Your task to perform on an android device: change your default location settings in chrome Image 0: 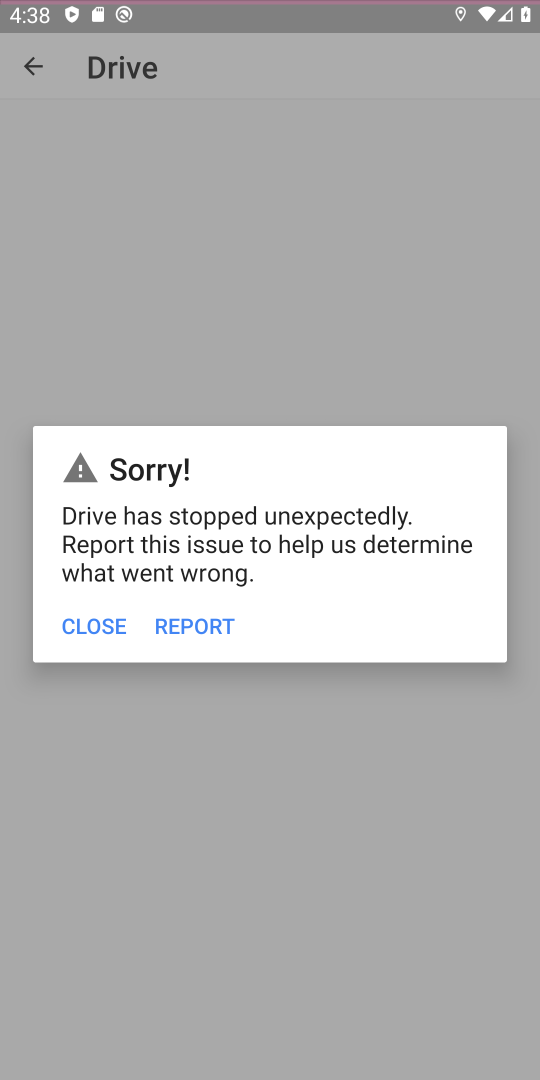
Step 0: press back button
Your task to perform on an android device: change your default location settings in chrome Image 1: 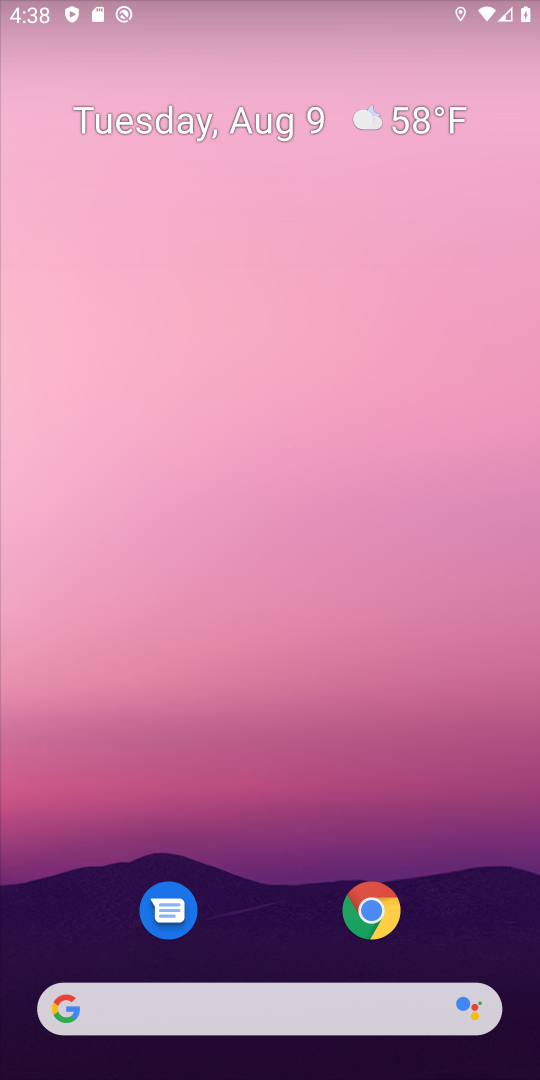
Step 1: press home button
Your task to perform on an android device: change your default location settings in chrome Image 2: 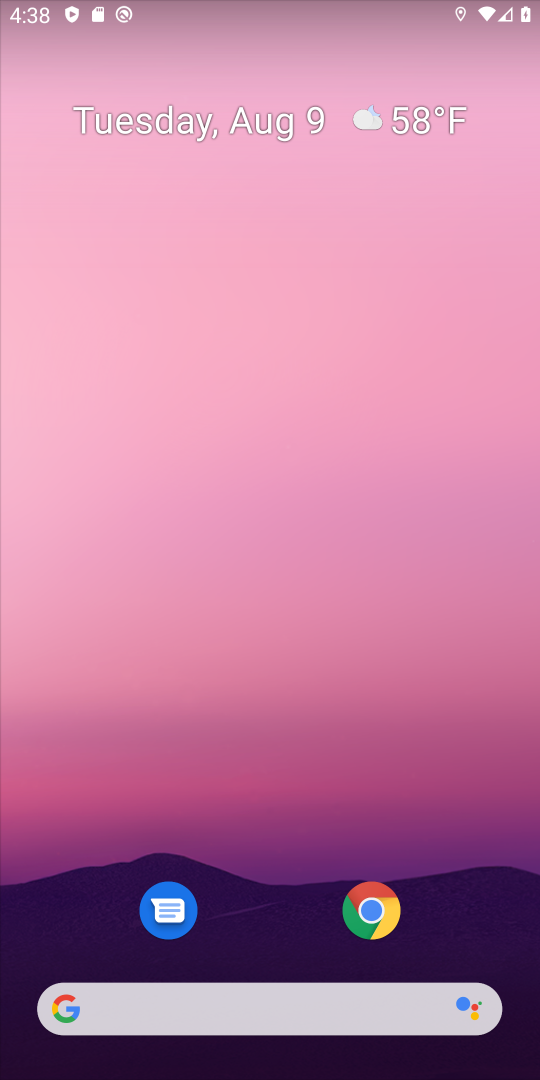
Step 2: drag from (224, 638) to (146, 149)
Your task to perform on an android device: change your default location settings in chrome Image 3: 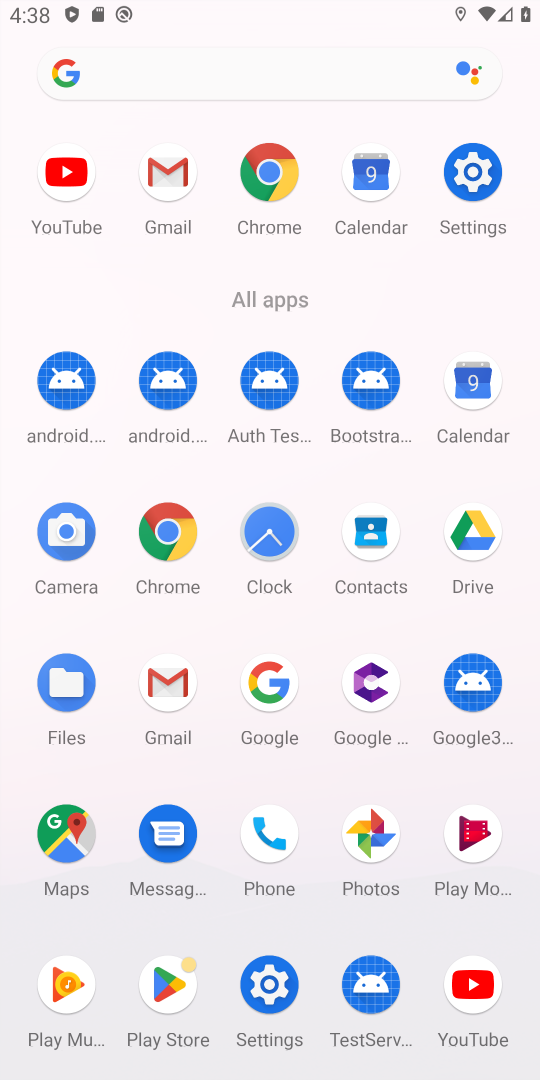
Step 3: click (259, 176)
Your task to perform on an android device: change your default location settings in chrome Image 4: 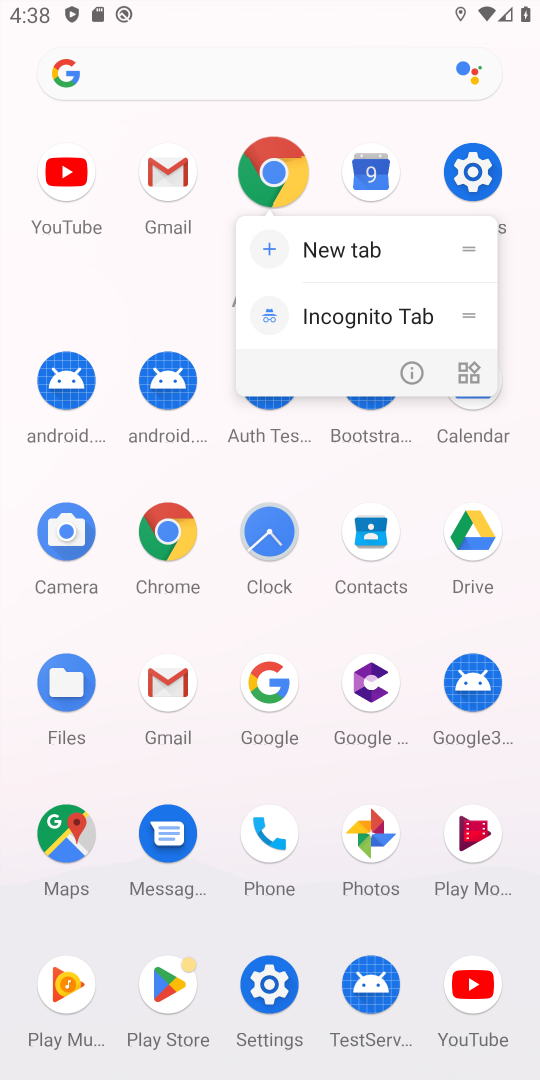
Step 4: click (276, 168)
Your task to perform on an android device: change your default location settings in chrome Image 5: 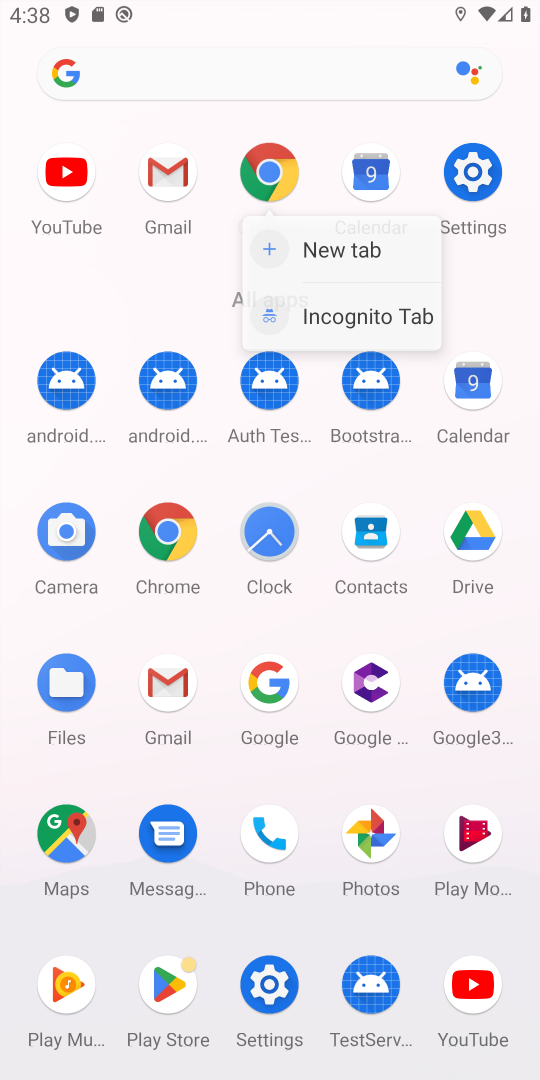
Step 5: click (280, 193)
Your task to perform on an android device: change your default location settings in chrome Image 6: 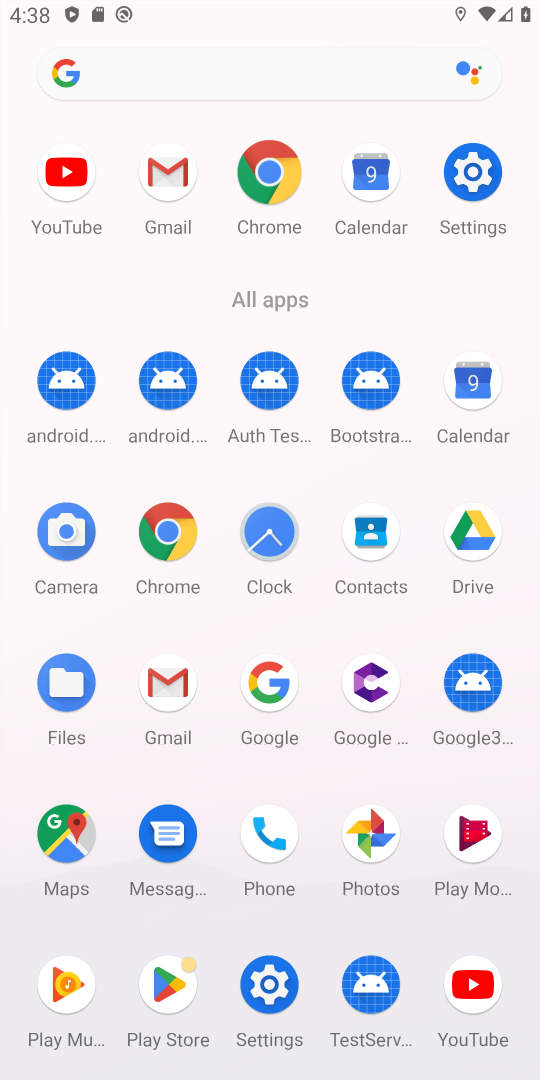
Step 6: click (277, 149)
Your task to perform on an android device: change your default location settings in chrome Image 7: 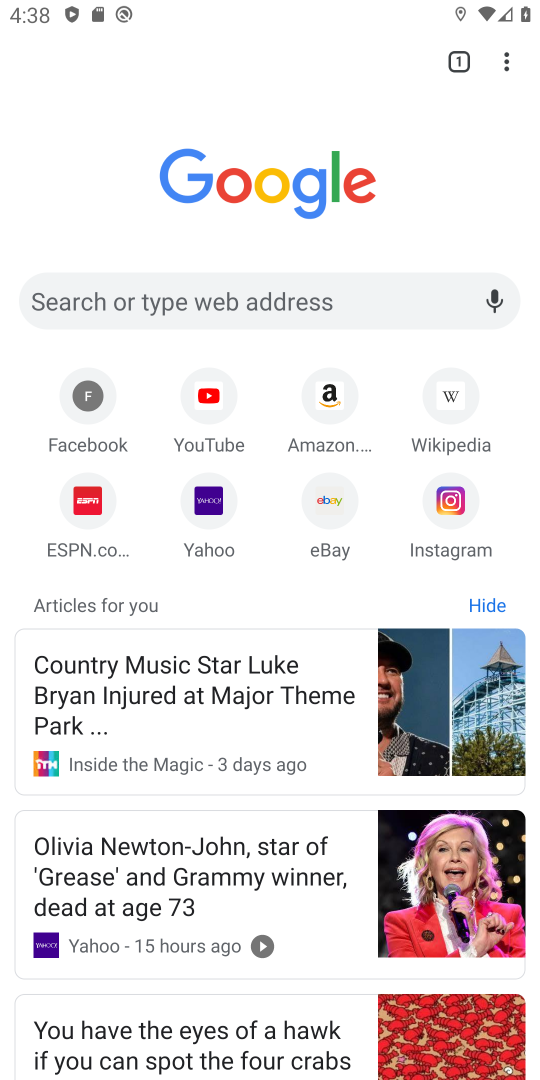
Step 7: drag from (502, 59) to (268, 528)
Your task to perform on an android device: change your default location settings in chrome Image 8: 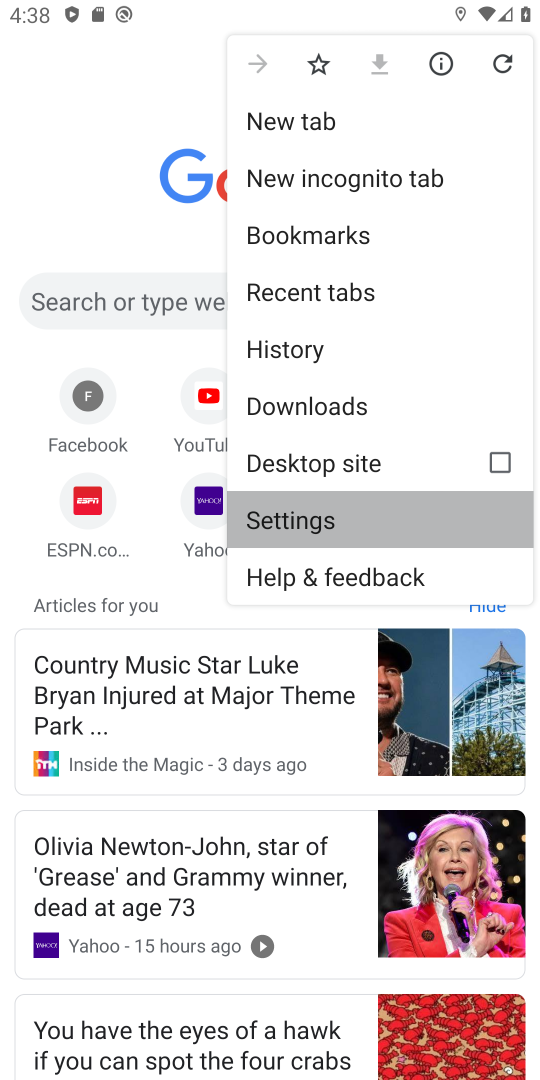
Step 8: click (289, 513)
Your task to perform on an android device: change your default location settings in chrome Image 9: 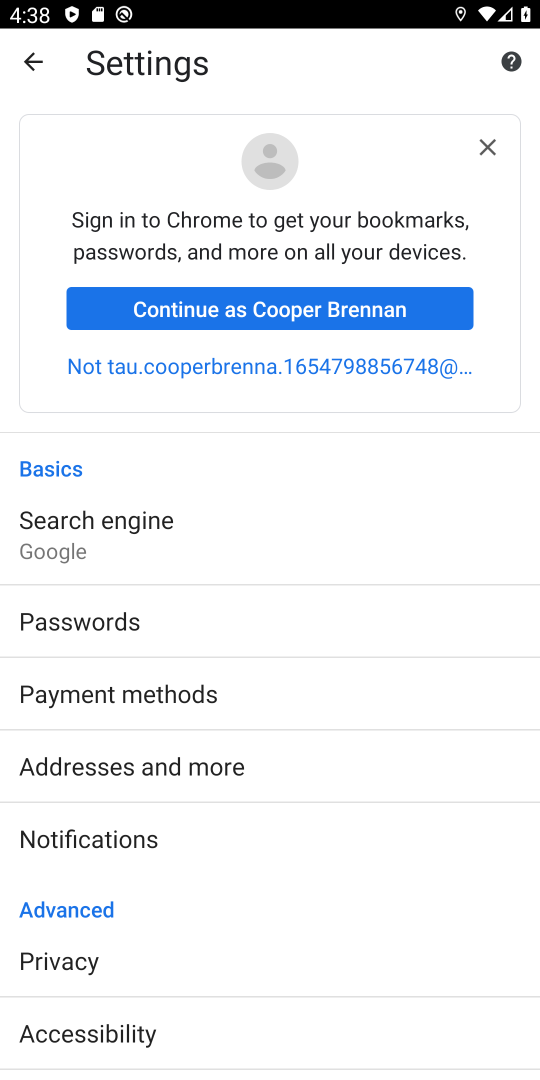
Step 9: drag from (120, 784) to (34, 360)
Your task to perform on an android device: change your default location settings in chrome Image 10: 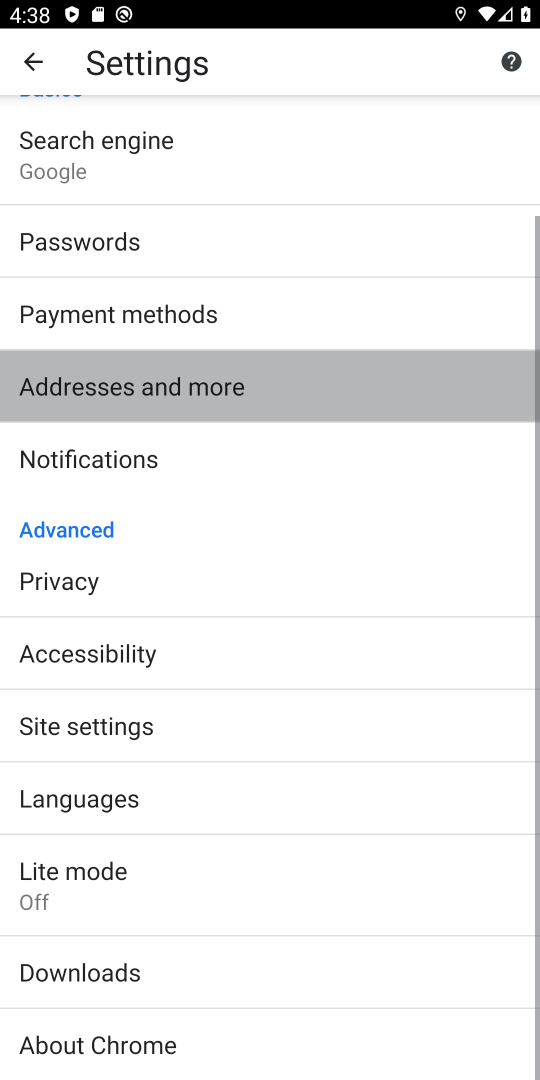
Step 10: drag from (150, 947) to (139, 525)
Your task to perform on an android device: change your default location settings in chrome Image 11: 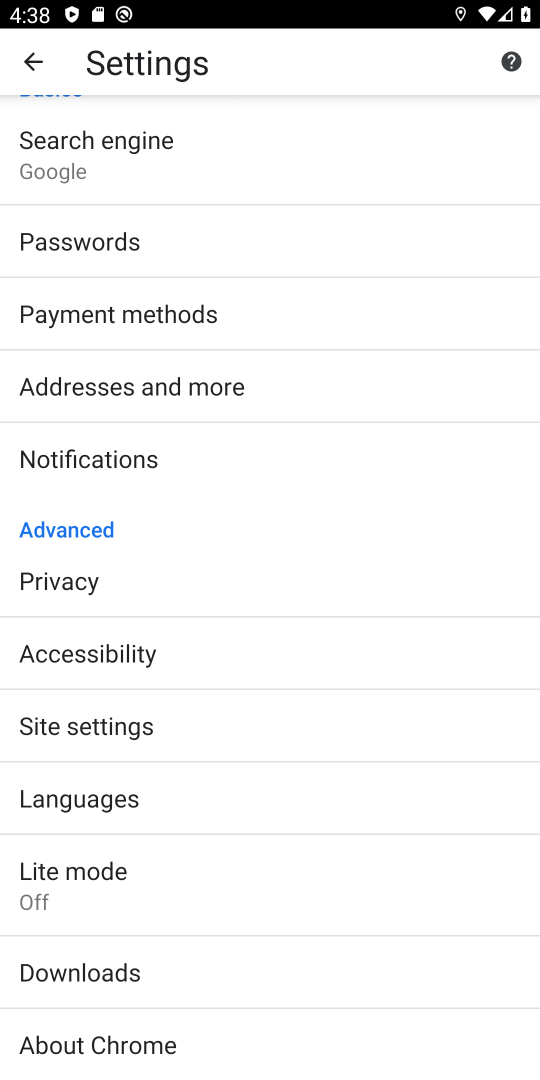
Step 11: click (87, 729)
Your task to perform on an android device: change your default location settings in chrome Image 12: 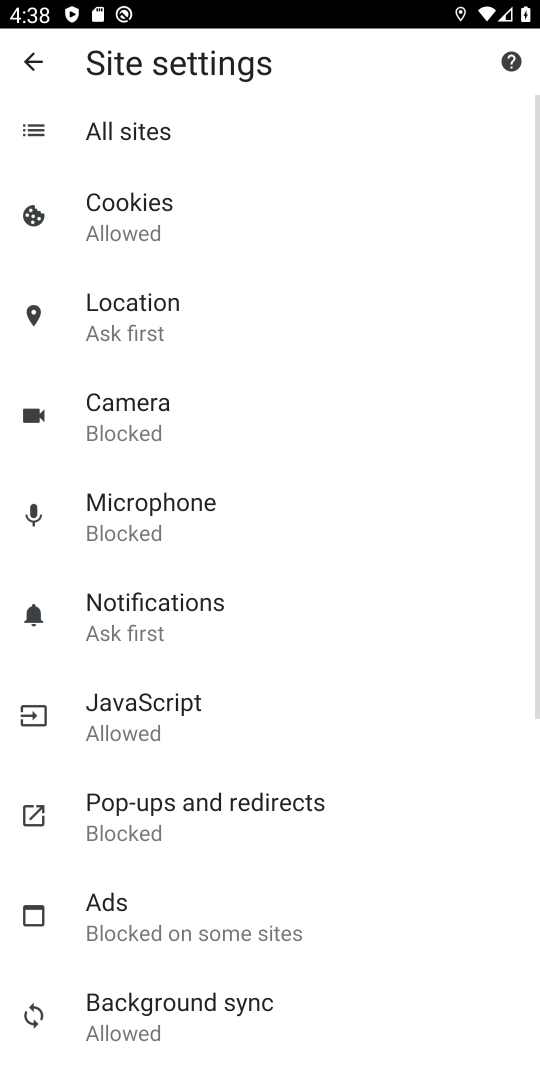
Step 12: click (82, 315)
Your task to perform on an android device: change your default location settings in chrome Image 13: 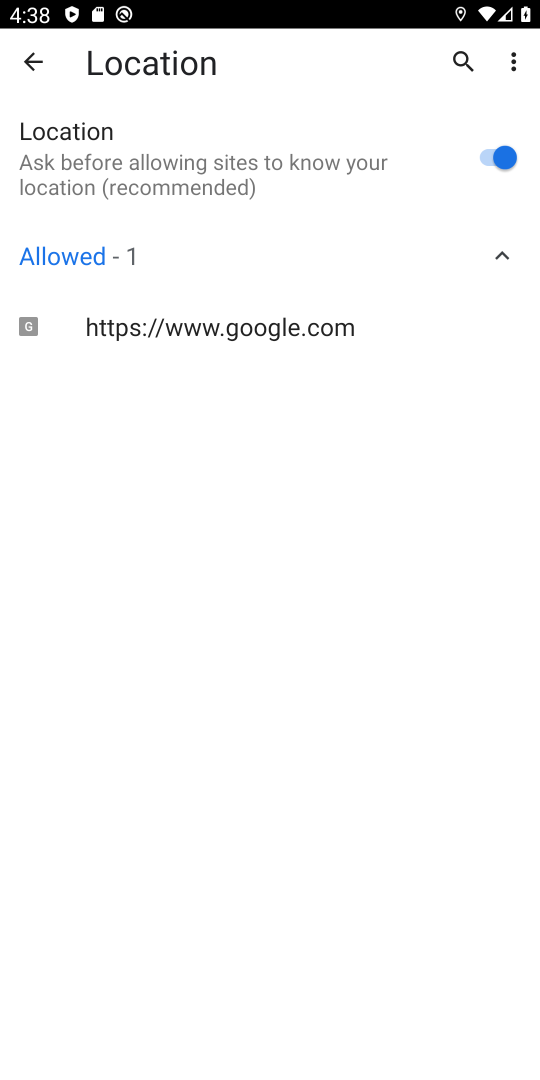
Step 13: click (490, 154)
Your task to perform on an android device: change your default location settings in chrome Image 14: 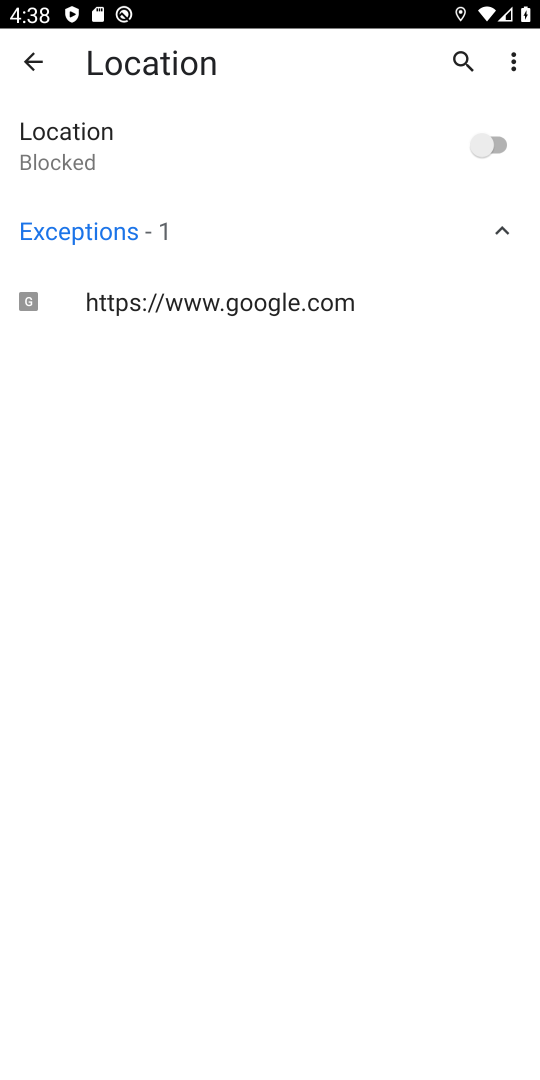
Step 14: task complete